Your task to perform on an android device: Open maps Image 0: 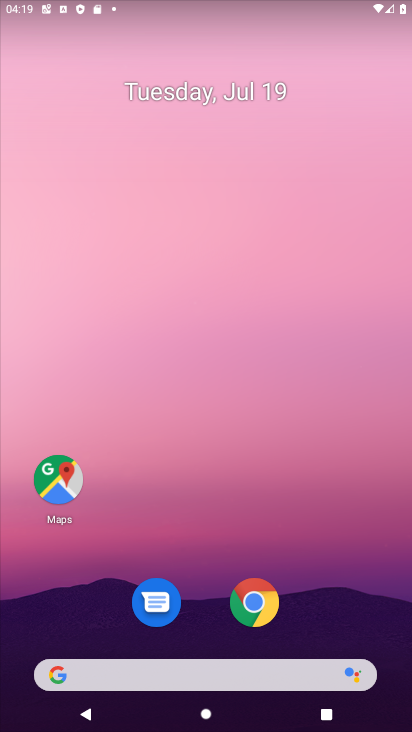
Step 0: click (47, 484)
Your task to perform on an android device: Open maps Image 1: 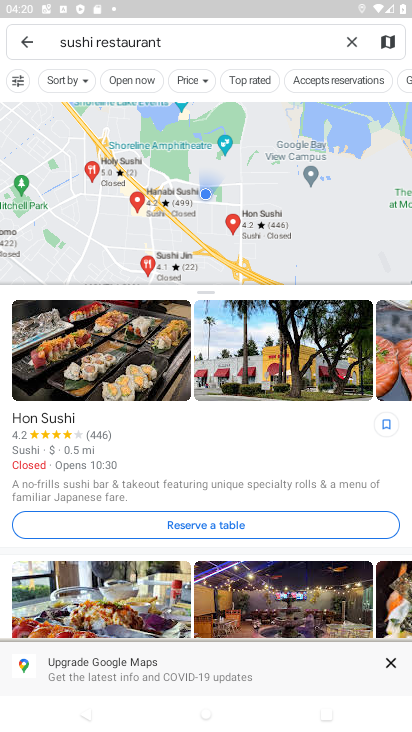
Step 1: click (59, 482)
Your task to perform on an android device: Open maps Image 2: 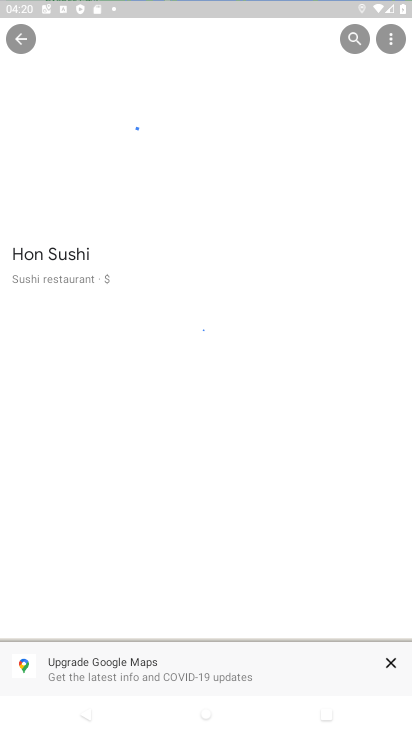
Step 2: task complete